Your task to perform on an android device: Is it going to rain today? Image 0: 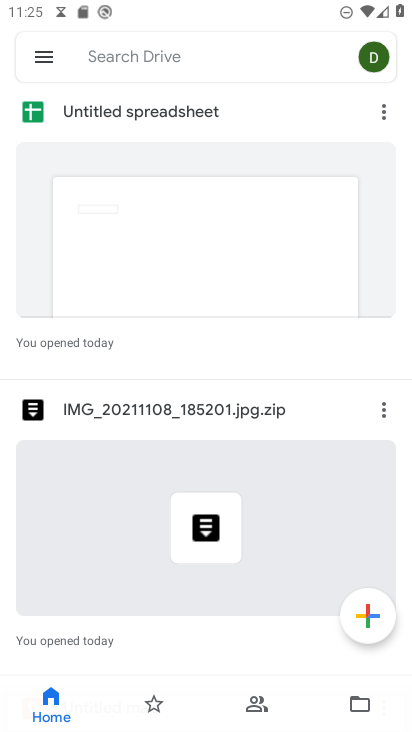
Step 0: press home button
Your task to perform on an android device: Is it going to rain today? Image 1: 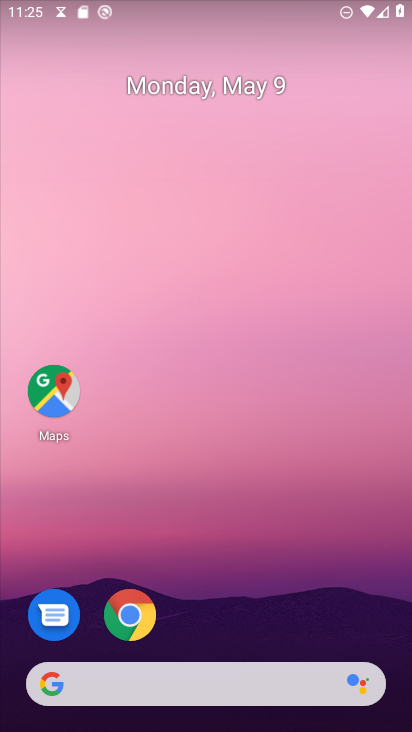
Step 1: drag from (212, 721) to (200, 89)
Your task to perform on an android device: Is it going to rain today? Image 2: 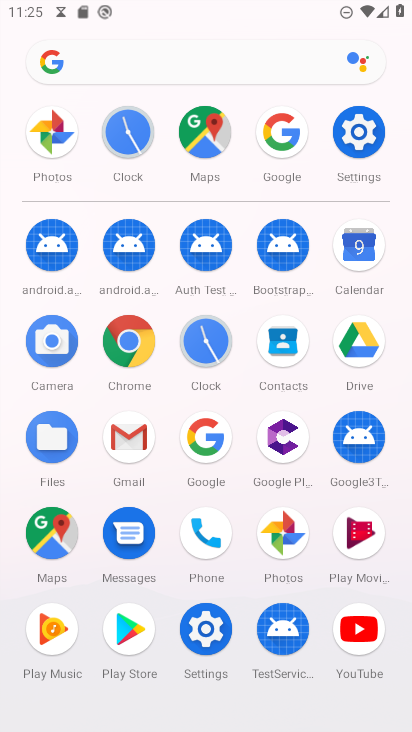
Step 2: click (200, 437)
Your task to perform on an android device: Is it going to rain today? Image 3: 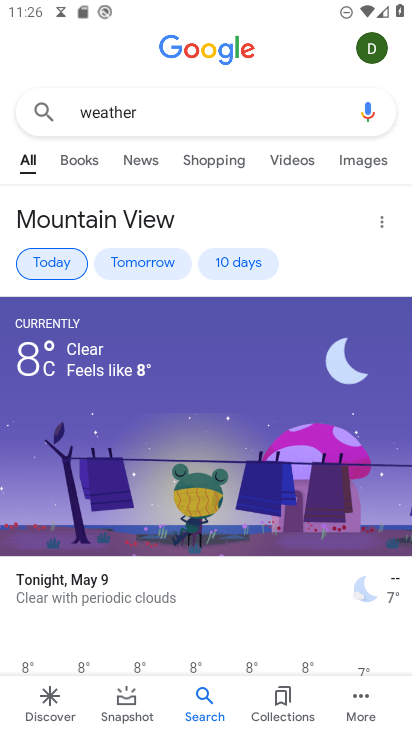
Step 3: task complete